Your task to perform on an android device: Open wifi settings Image 0: 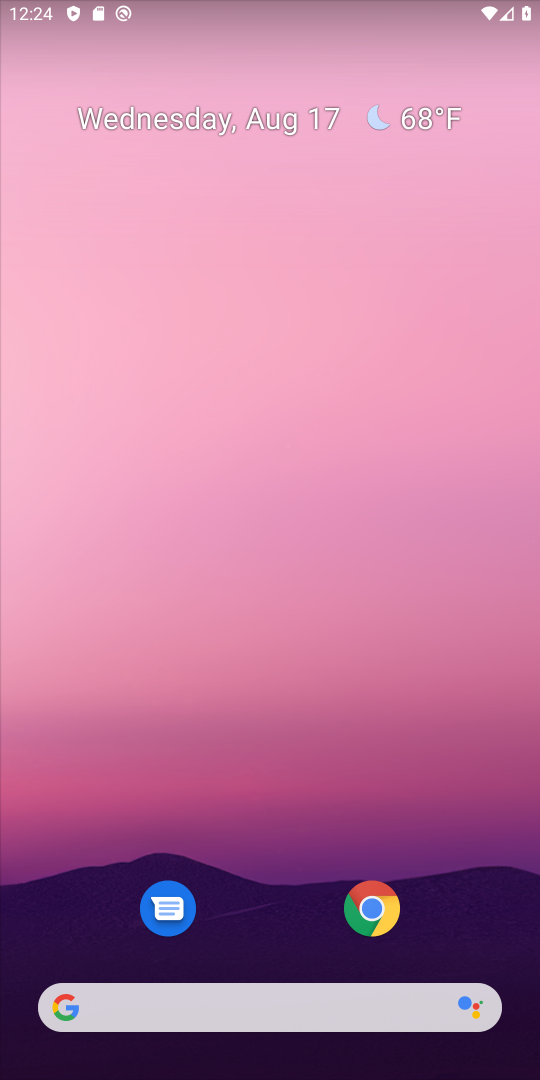
Step 0: drag from (260, 669) to (260, 354)
Your task to perform on an android device: Open wifi settings Image 1: 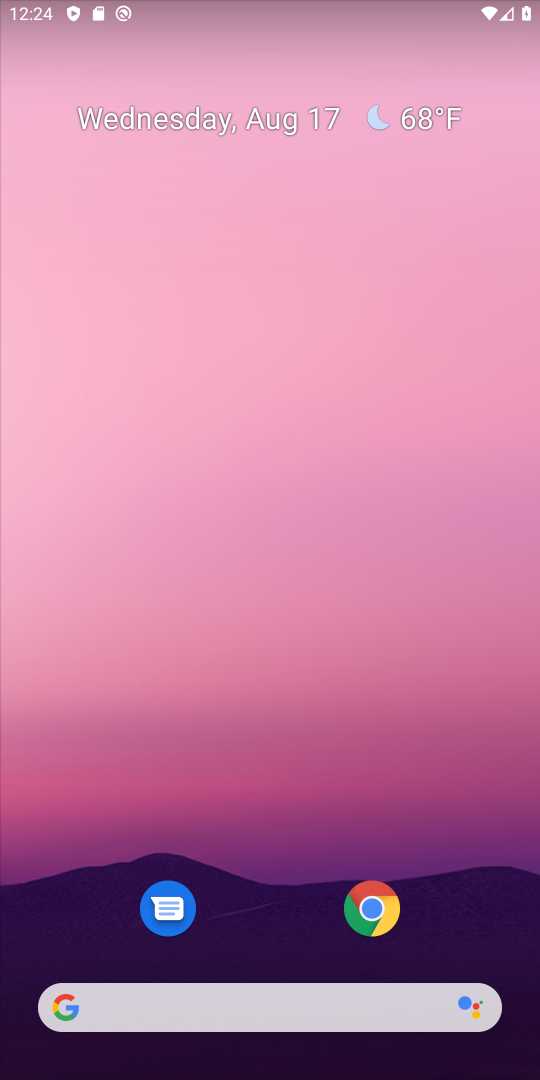
Step 1: drag from (271, 886) to (308, 232)
Your task to perform on an android device: Open wifi settings Image 2: 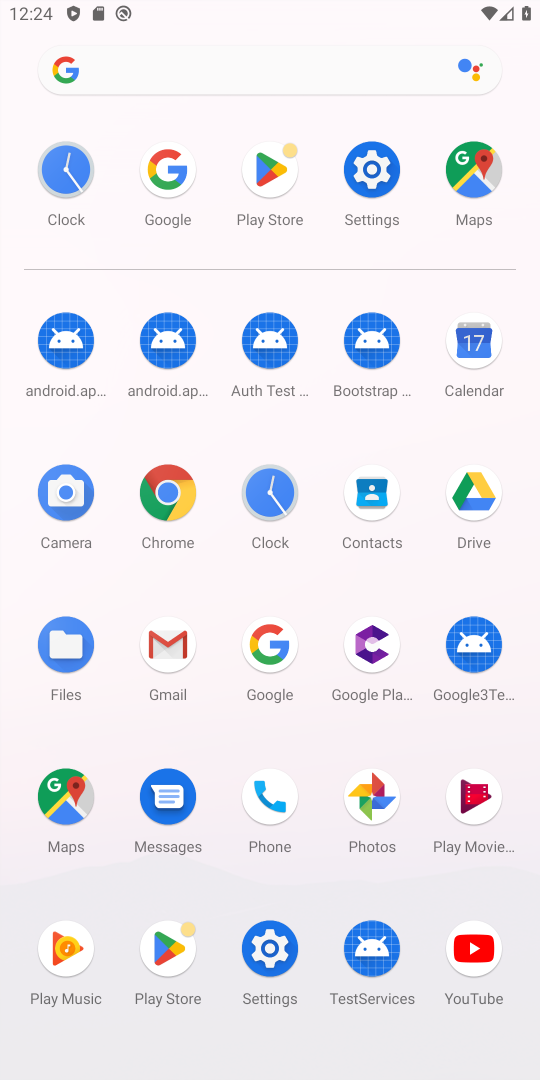
Step 2: click (378, 163)
Your task to perform on an android device: Open wifi settings Image 3: 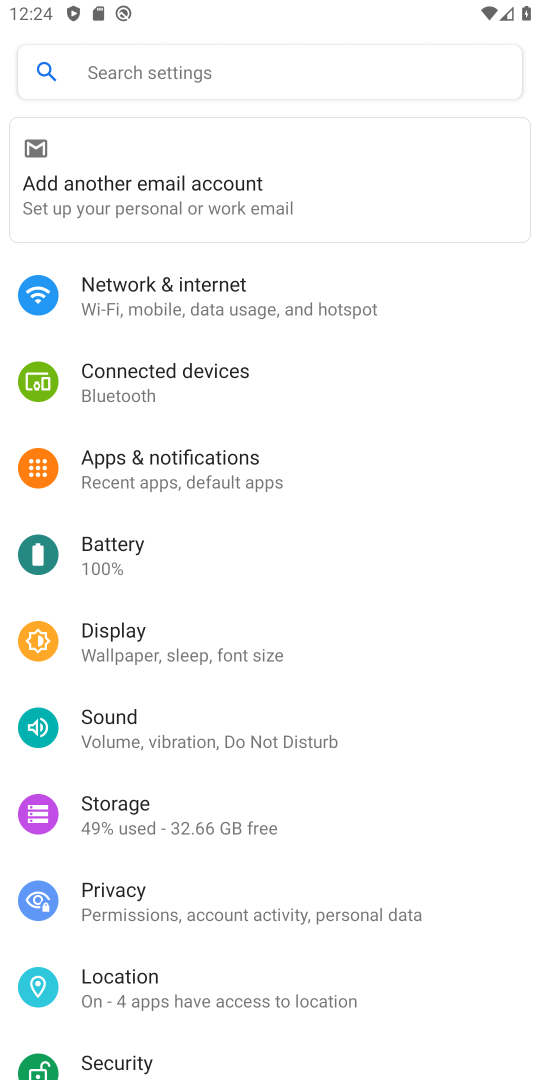
Step 3: click (171, 297)
Your task to perform on an android device: Open wifi settings Image 4: 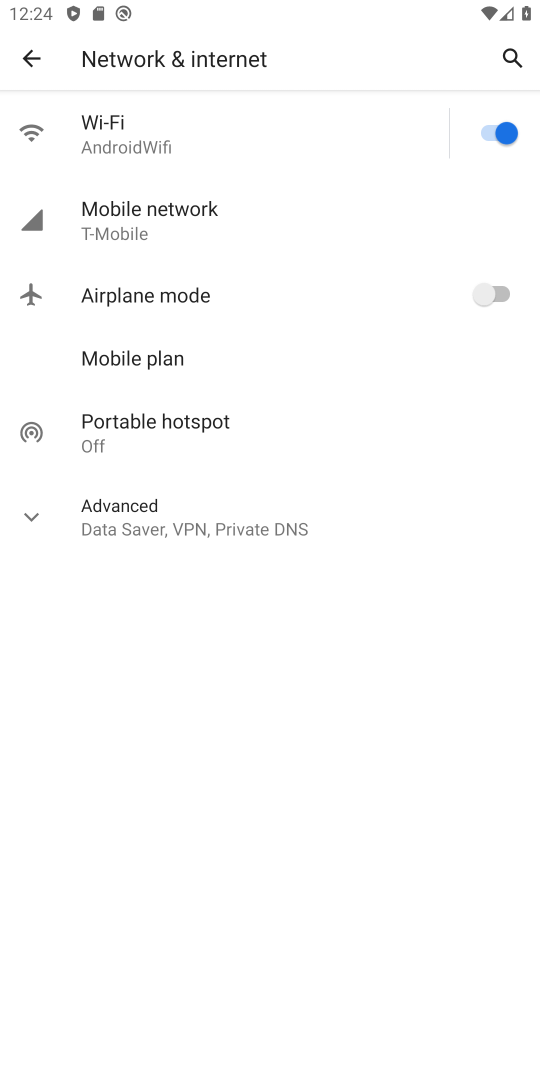
Step 4: click (133, 144)
Your task to perform on an android device: Open wifi settings Image 5: 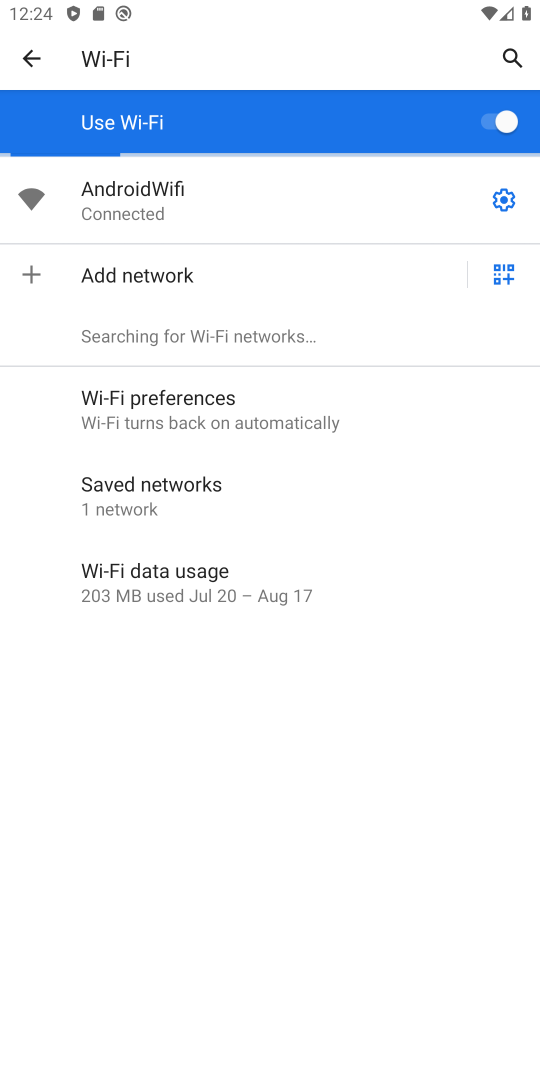
Step 5: task complete